Your task to perform on an android device: Go to eBay Image 0: 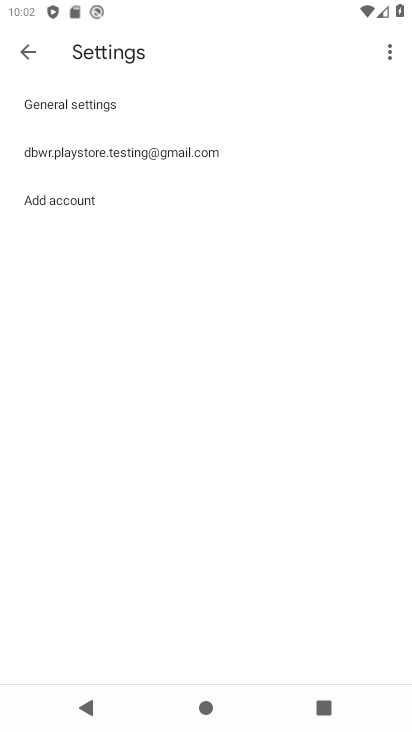
Step 0: click (22, 47)
Your task to perform on an android device: Go to eBay Image 1: 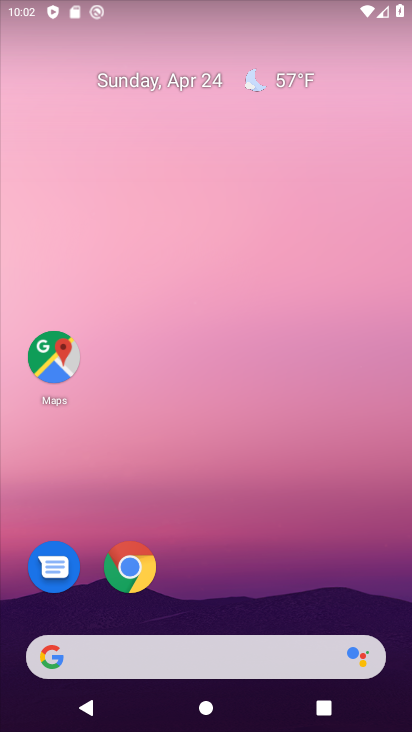
Step 1: click (132, 559)
Your task to perform on an android device: Go to eBay Image 2: 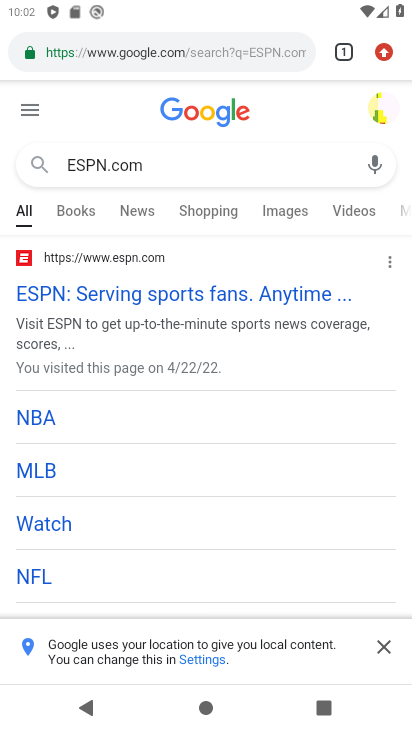
Step 2: click (241, 159)
Your task to perform on an android device: Go to eBay Image 3: 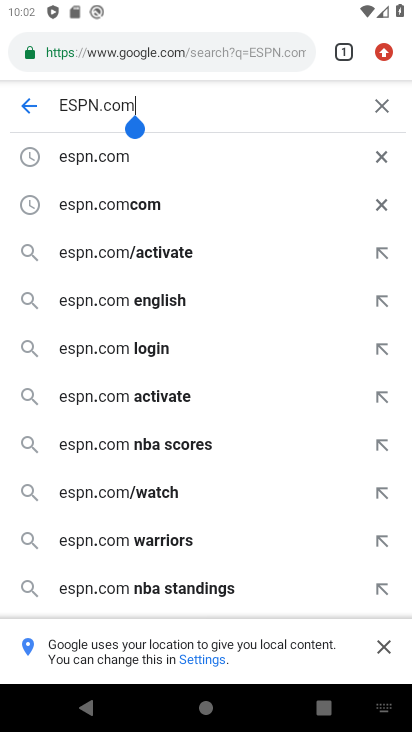
Step 3: click (374, 102)
Your task to perform on an android device: Go to eBay Image 4: 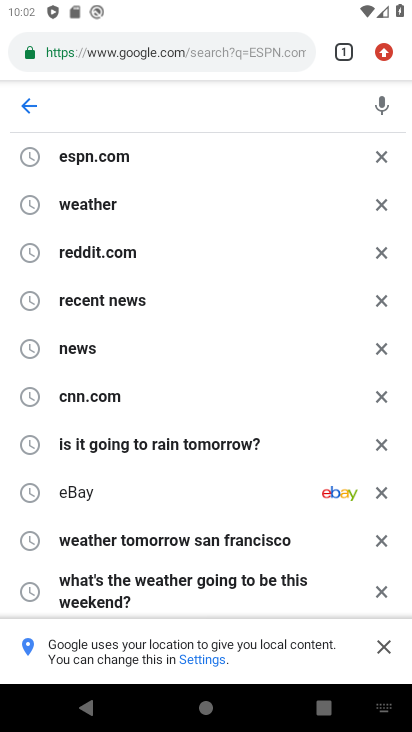
Step 4: type "eBay"
Your task to perform on an android device: Go to eBay Image 5: 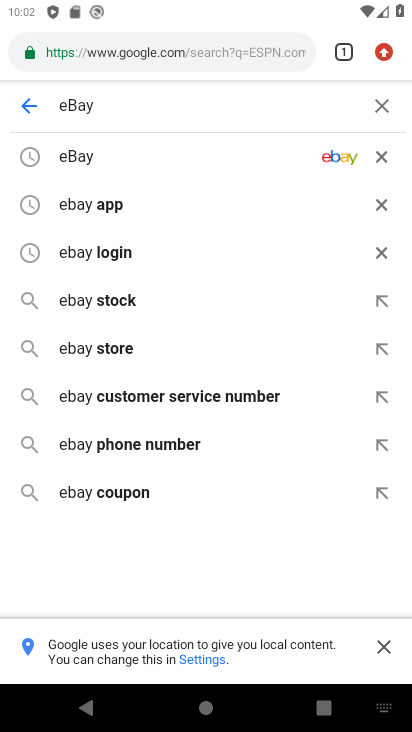
Step 5: click (71, 149)
Your task to perform on an android device: Go to eBay Image 6: 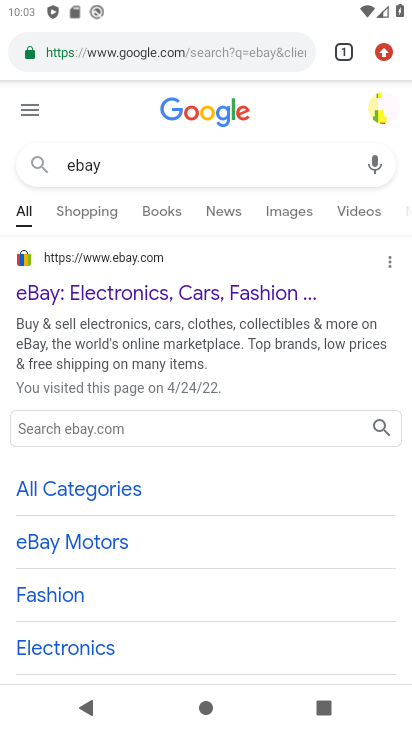
Step 6: task complete